Your task to perform on an android device: Go to sound settings Image 0: 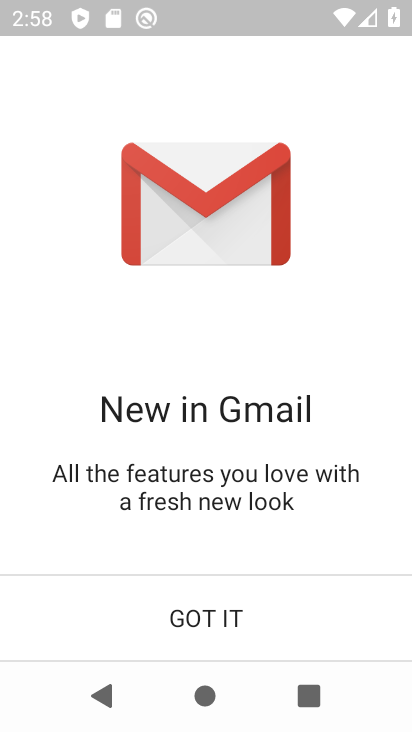
Step 0: click (278, 627)
Your task to perform on an android device: Go to sound settings Image 1: 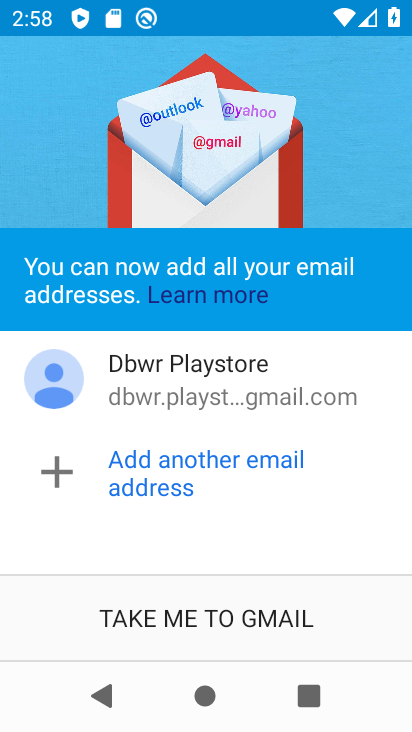
Step 1: press home button
Your task to perform on an android device: Go to sound settings Image 2: 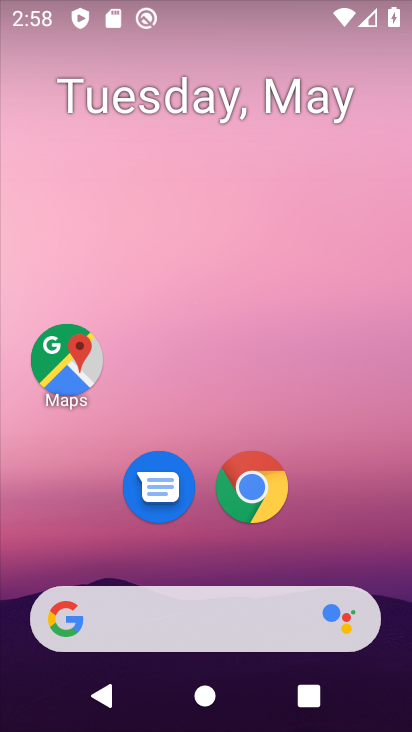
Step 2: drag from (201, 548) to (219, 0)
Your task to perform on an android device: Go to sound settings Image 3: 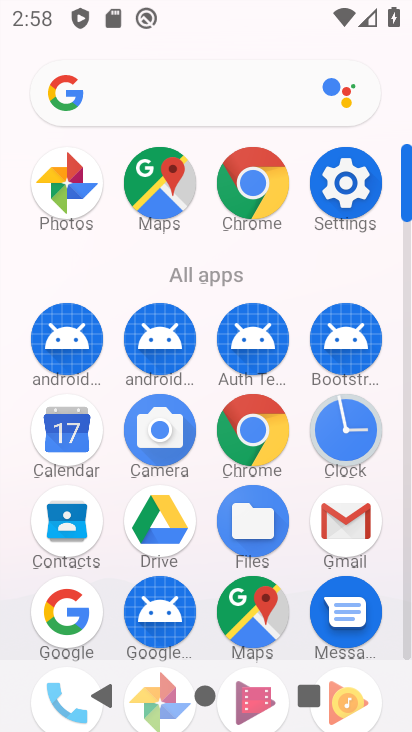
Step 3: click (334, 181)
Your task to perform on an android device: Go to sound settings Image 4: 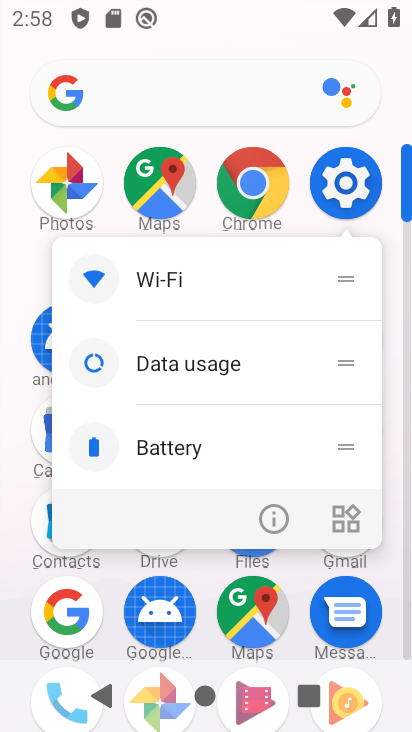
Step 4: click (335, 172)
Your task to perform on an android device: Go to sound settings Image 5: 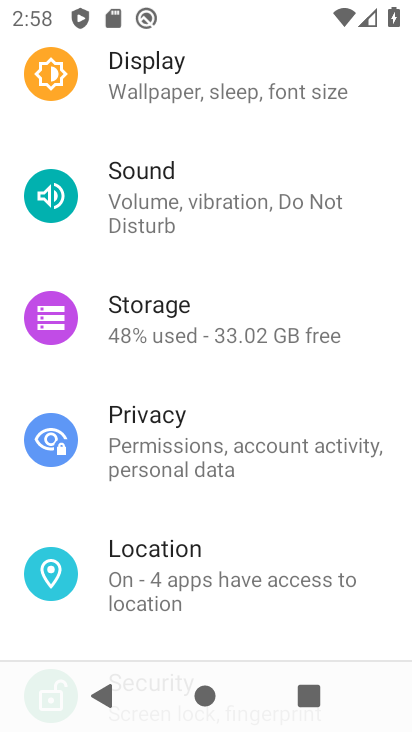
Step 5: click (170, 220)
Your task to perform on an android device: Go to sound settings Image 6: 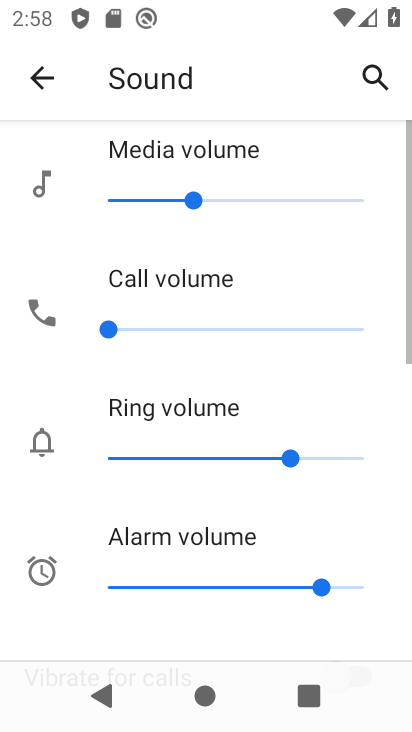
Step 6: task complete